Your task to perform on an android device: delete location history Image 0: 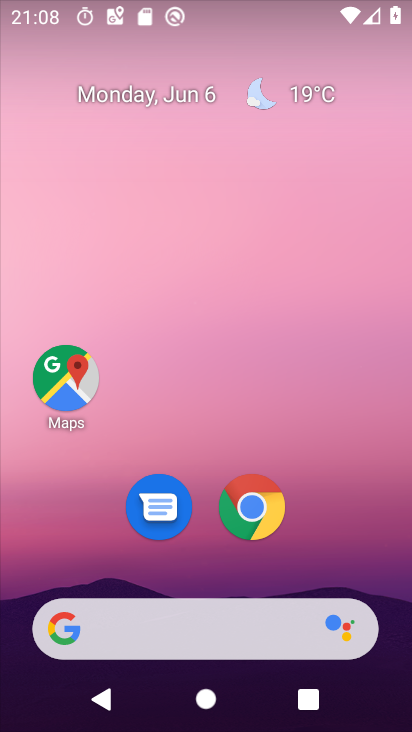
Step 0: press home button
Your task to perform on an android device: delete location history Image 1: 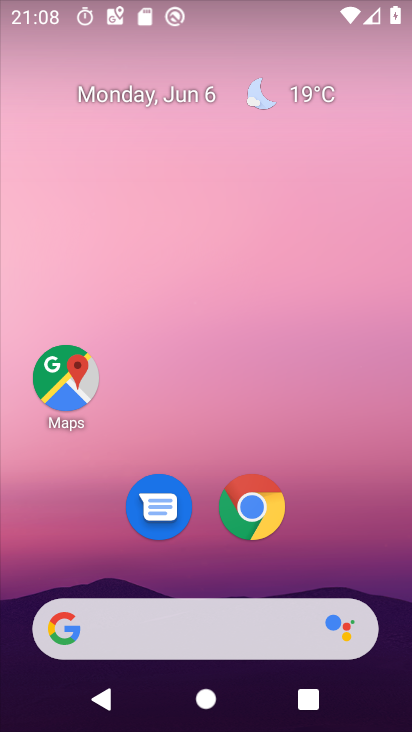
Step 1: drag from (319, 519) to (248, 39)
Your task to perform on an android device: delete location history Image 2: 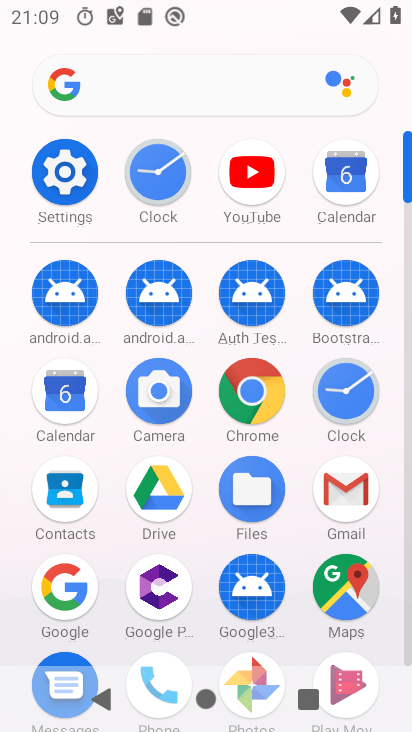
Step 2: drag from (185, 598) to (155, 357)
Your task to perform on an android device: delete location history Image 3: 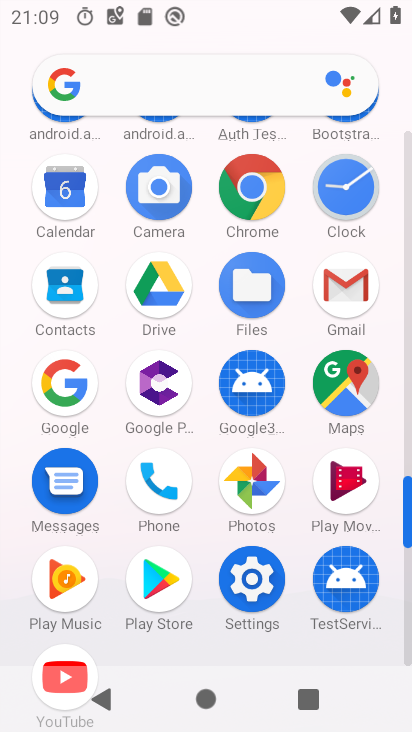
Step 3: click (340, 400)
Your task to perform on an android device: delete location history Image 4: 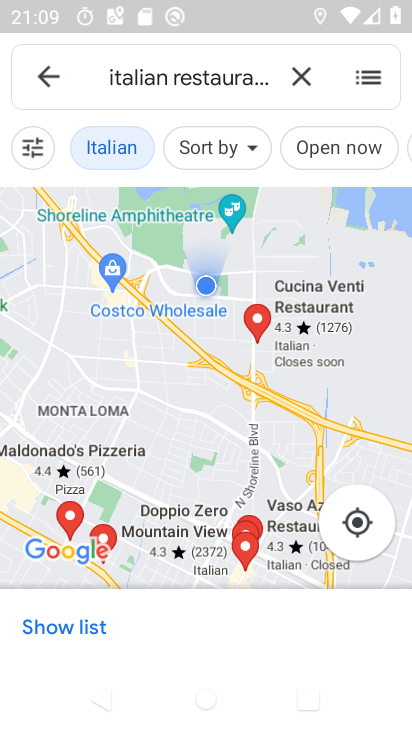
Step 4: click (31, 63)
Your task to perform on an android device: delete location history Image 5: 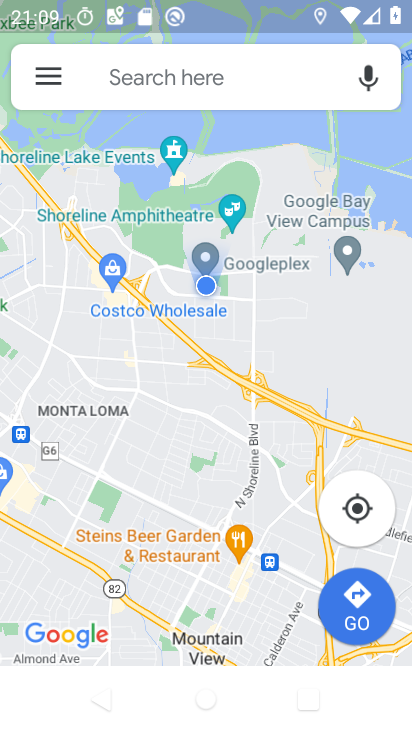
Step 5: click (44, 83)
Your task to perform on an android device: delete location history Image 6: 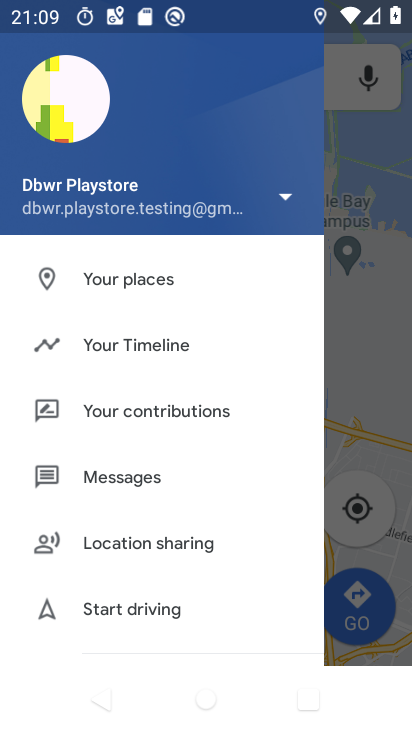
Step 6: click (91, 353)
Your task to perform on an android device: delete location history Image 7: 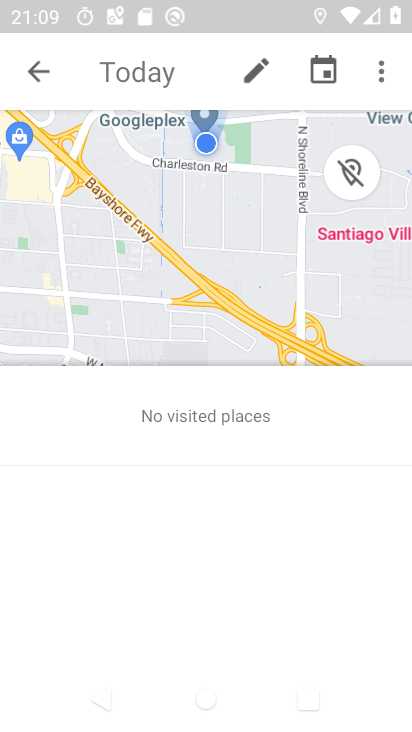
Step 7: click (390, 69)
Your task to perform on an android device: delete location history Image 8: 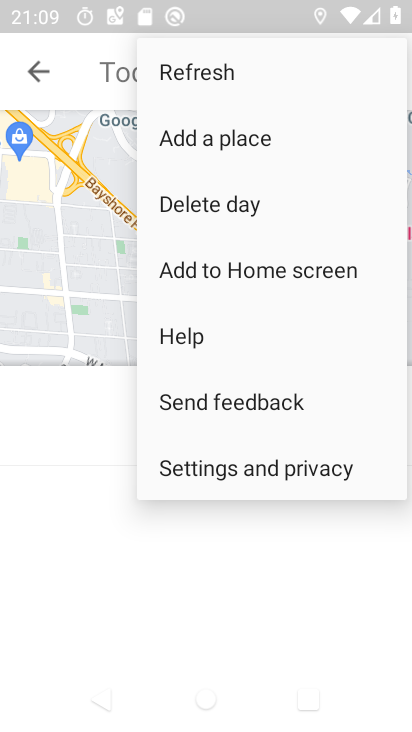
Step 8: click (315, 482)
Your task to perform on an android device: delete location history Image 9: 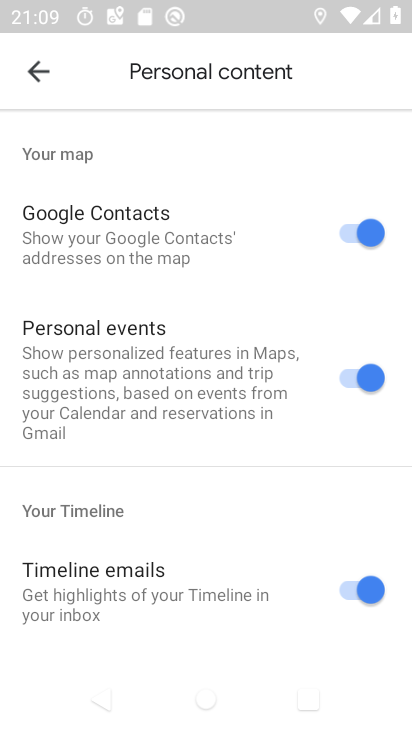
Step 9: drag from (262, 607) to (179, 271)
Your task to perform on an android device: delete location history Image 10: 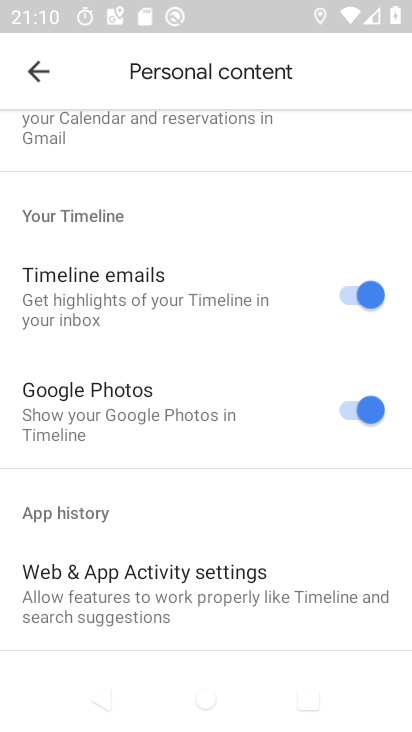
Step 10: drag from (190, 516) to (166, 199)
Your task to perform on an android device: delete location history Image 11: 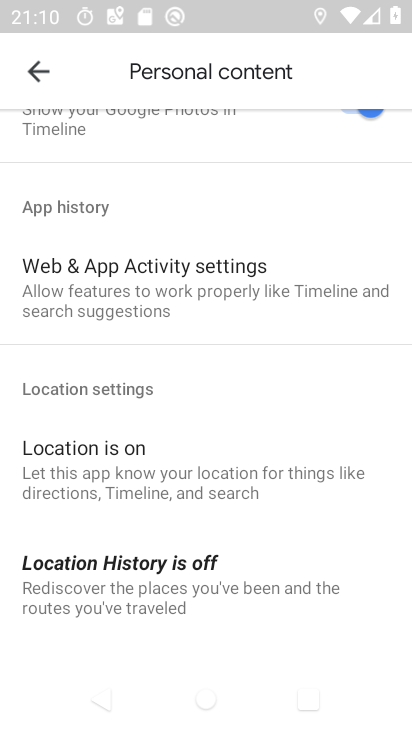
Step 11: click (186, 573)
Your task to perform on an android device: delete location history Image 12: 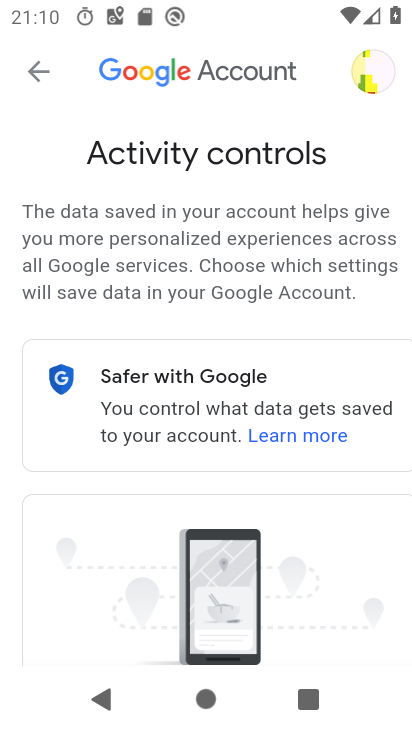
Step 12: drag from (186, 569) to (0, 69)
Your task to perform on an android device: delete location history Image 13: 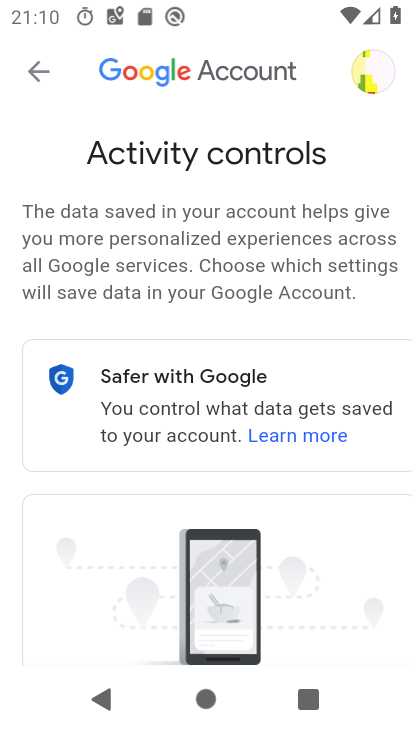
Step 13: drag from (230, 604) to (113, 111)
Your task to perform on an android device: delete location history Image 14: 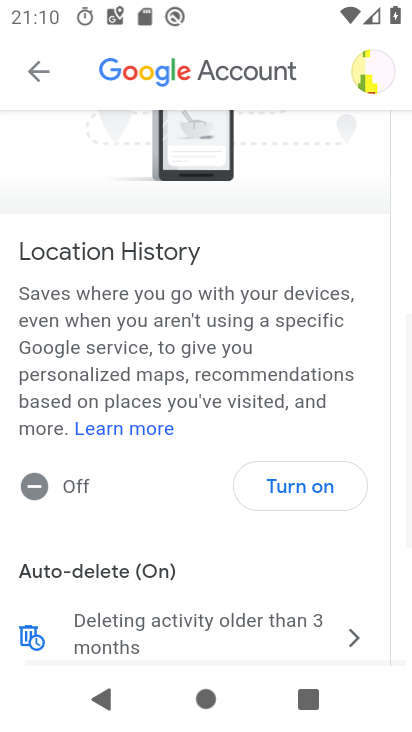
Step 14: drag from (299, 544) to (240, 377)
Your task to perform on an android device: delete location history Image 15: 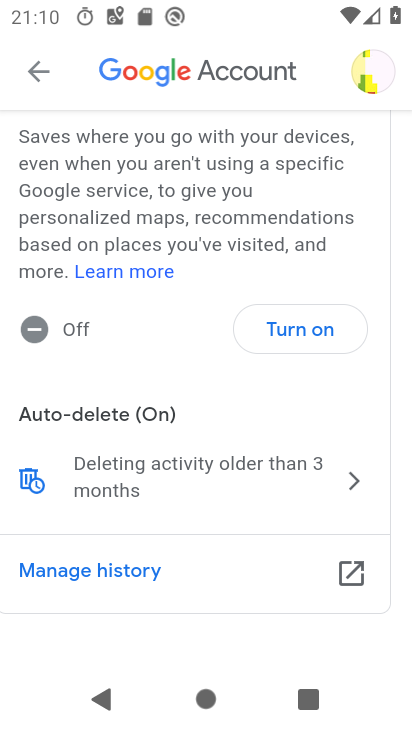
Step 15: click (27, 84)
Your task to perform on an android device: delete location history Image 16: 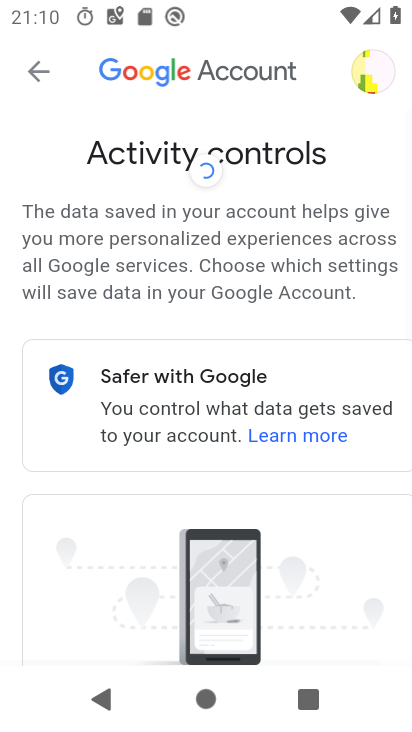
Step 16: drag from (210, 487) to (168, 208)
Your task to perform on an android device: delete location history Image 17: 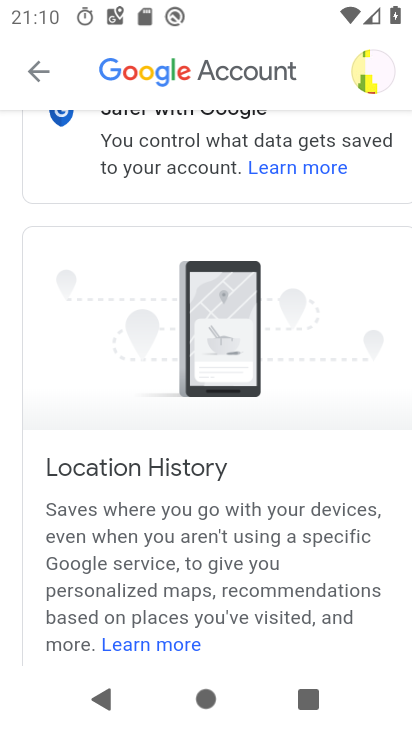
Step 17: click (43, 70)
Your task to perform on an android device: delete location history Image 18: 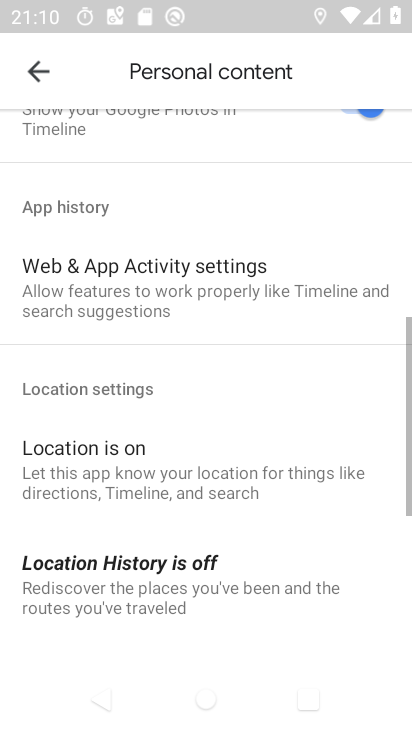
Step 18: drag from (226, 447) to (195, 172)
Your task to perform on an android device: delete location history Image 19: 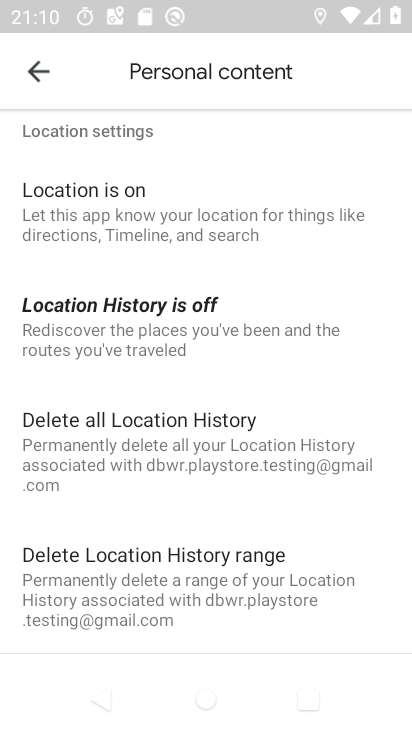
Step 19: click (187, 464)
Your task to perform on an android device: delete location history Image 20: 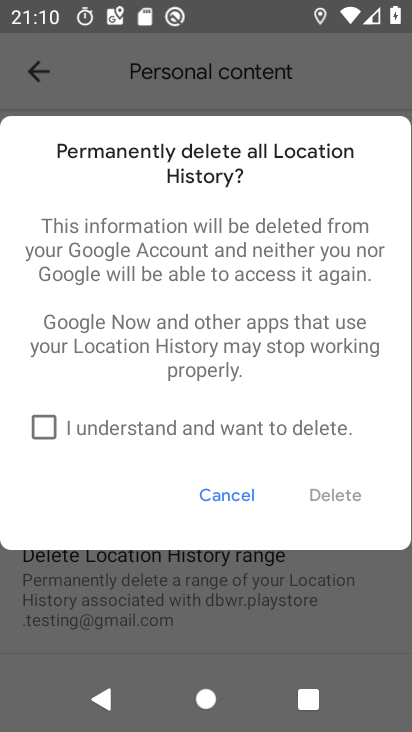
Step 20: click (185, 432)
Your task to perform on an android device: delete location history Image 21: 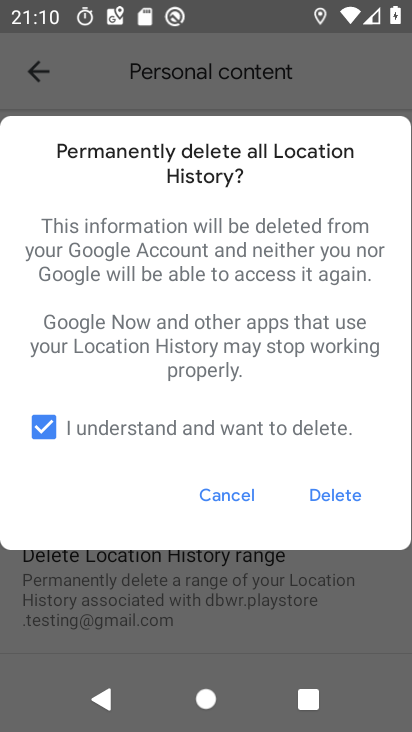
Step 21: click (330, 496)
Your task to perform on an android device: delete location history Image 22: 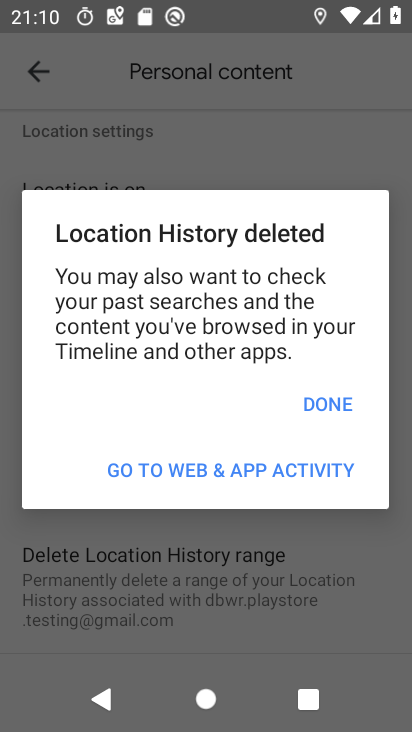
Step 22: click (324, 423)
Your task to perform on an android device: delete location history Image 23: 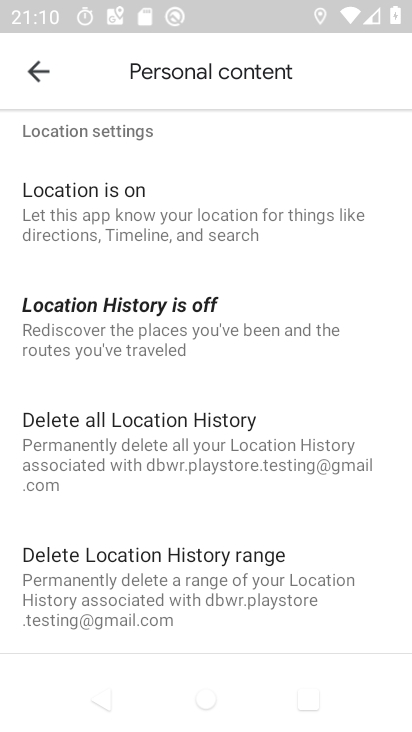
Step 23: task complete